Your task to perform on an android device: Turn off the flashlight Image 0: 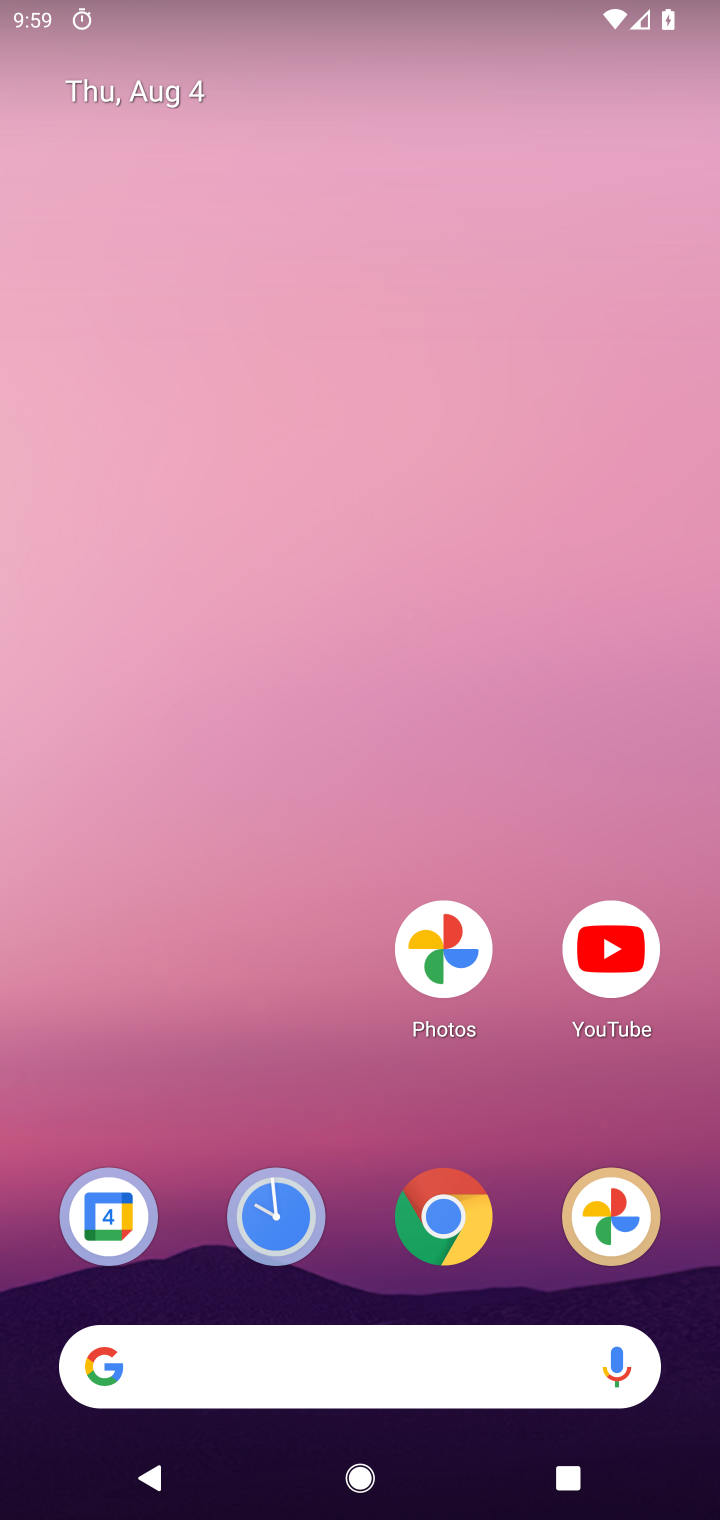
Step 0: drag from (333, 1307) to (333, 186)
Your task to perform on an android device: Turn off the flashlight Image 1: 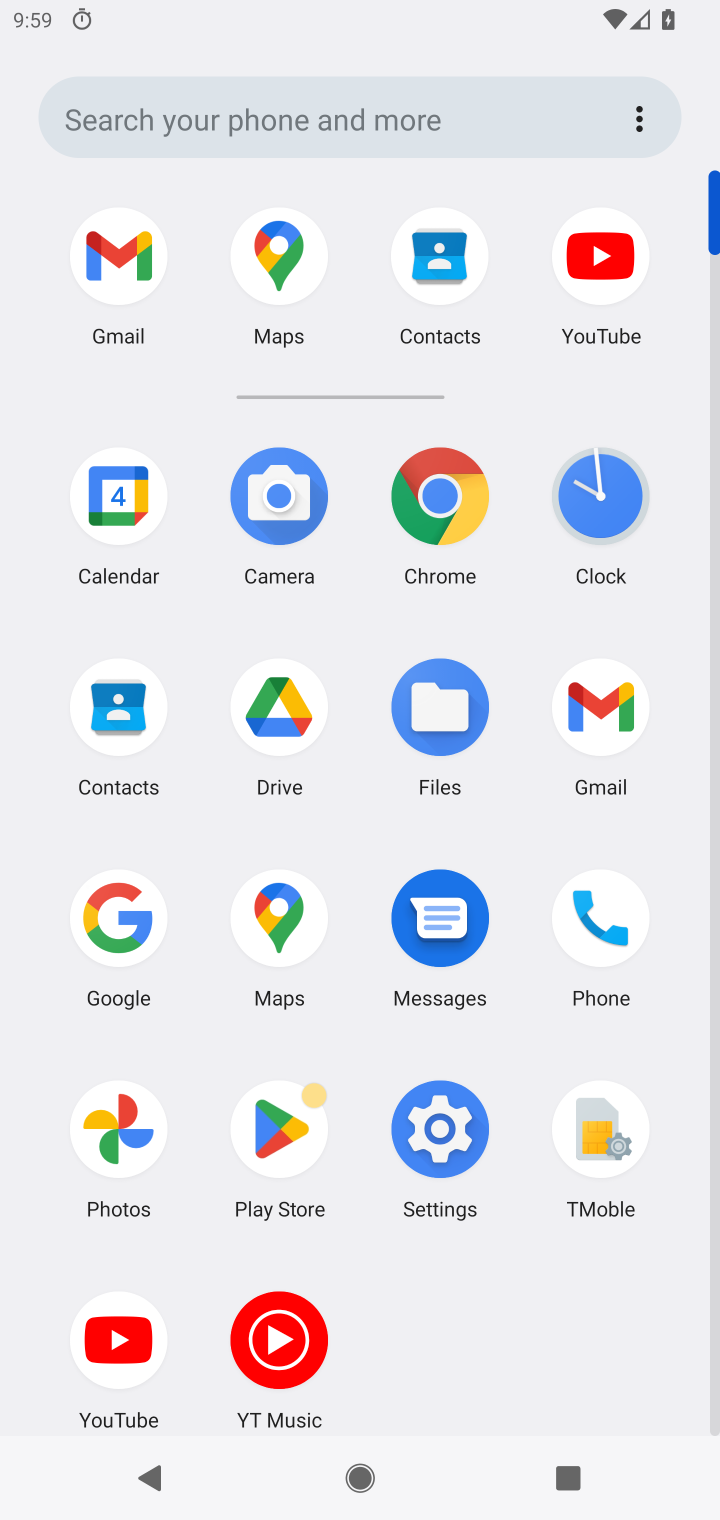
Step 1: click (448, 1115)
Your task to perform on an android device: Turn off the flashlight Image 2: 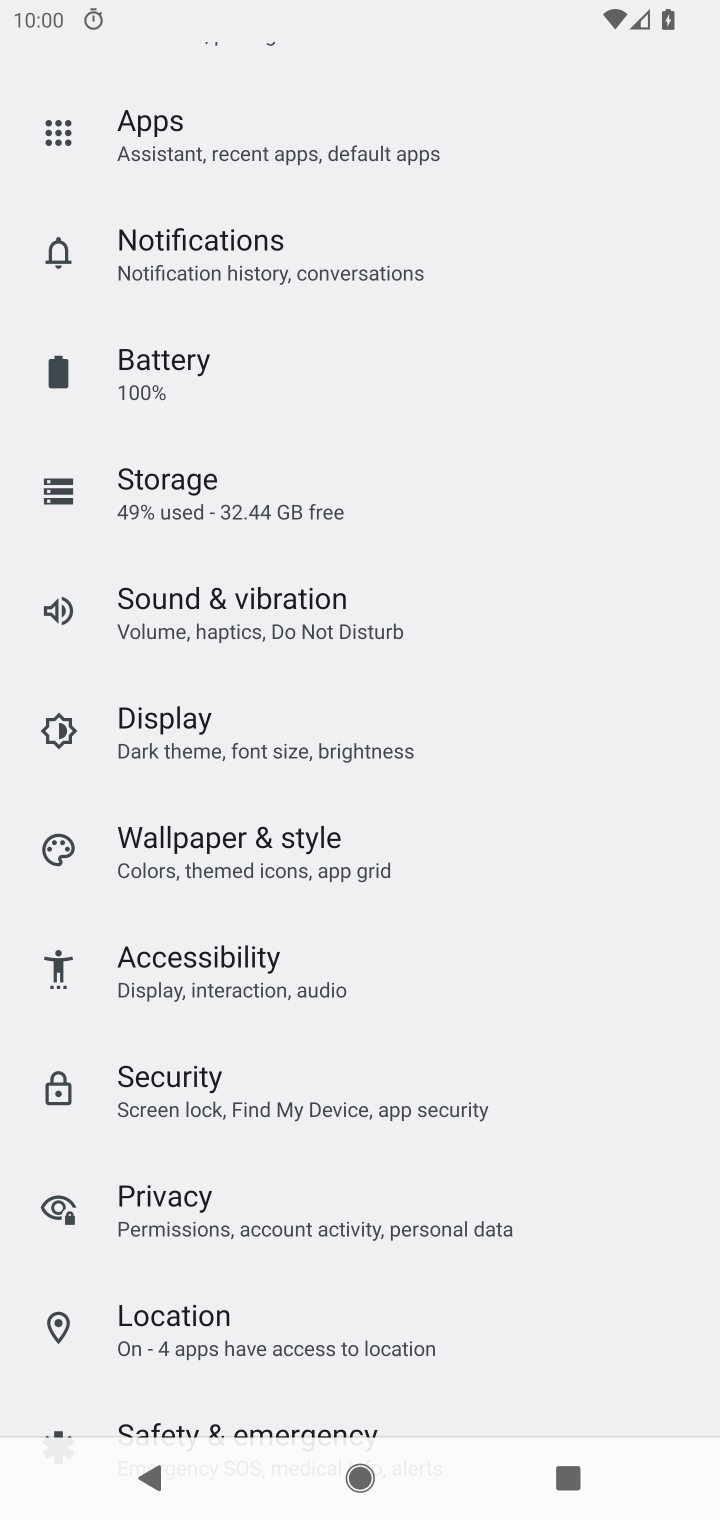
Step 2: task complete